Your task to perform on an android device: Open my contact list Image 0: 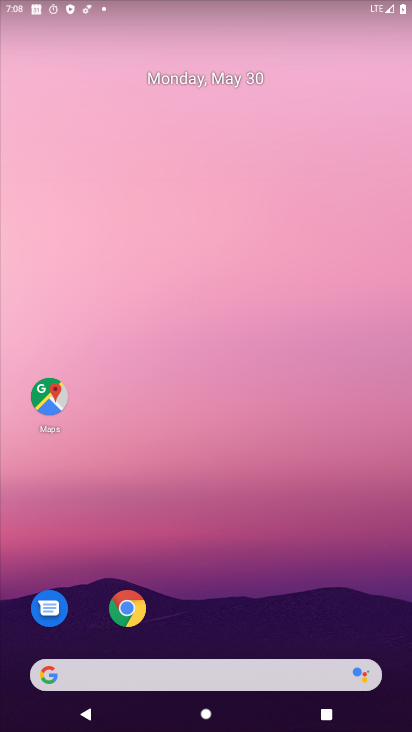
Step 0: drag from (278, 492) to (269, 104)
Your task to perform on an android device: Open my contact list Image 1: 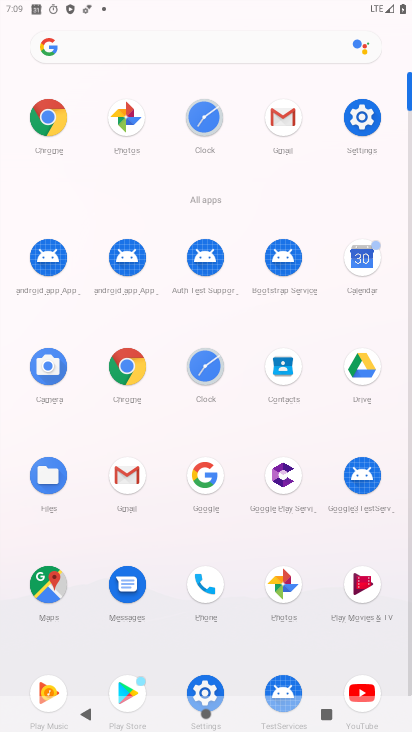
Step 1: click (272, 374)
Your task to perform on an android device: Open my contact list Image 2: 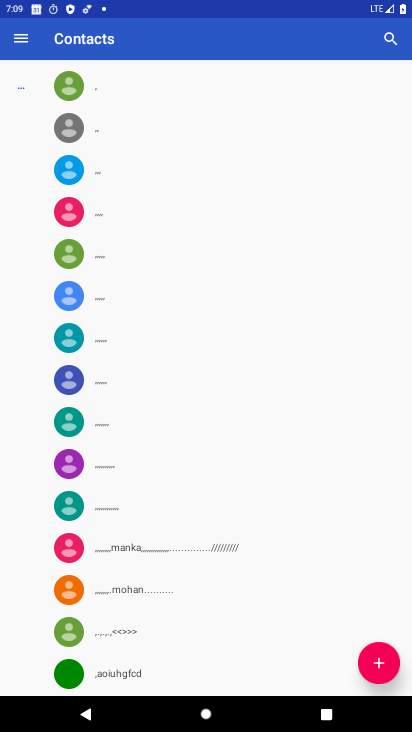
Step 2: task complete